Your task to perform on an android device: Open Reddit.com Image 0: 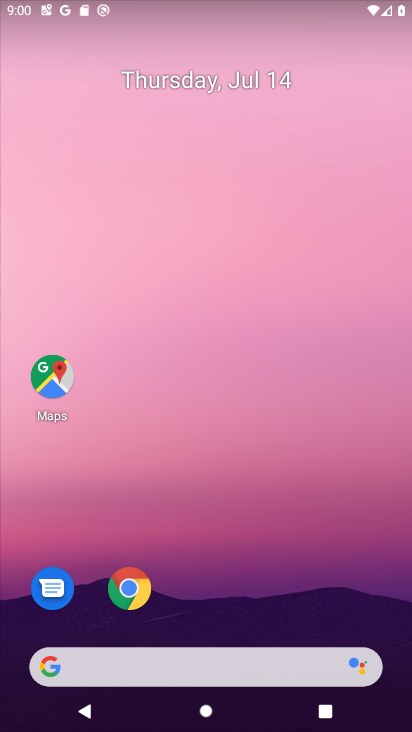
Step 0: click (238, 243)
Your task to perform on an android device: Open Reddit.com Image 1: 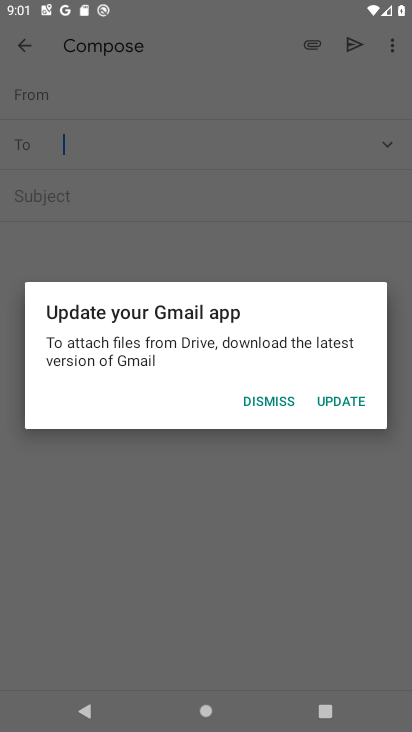
Step 1: press back button
Your task to perform on an android device: Open Reddit.com Image 2: 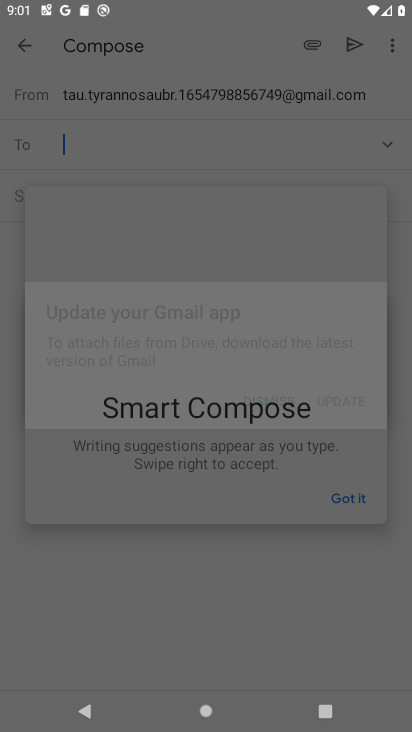
Step 2: press back button
Your task to perform on an android device: Open Reddit.com Image 3: 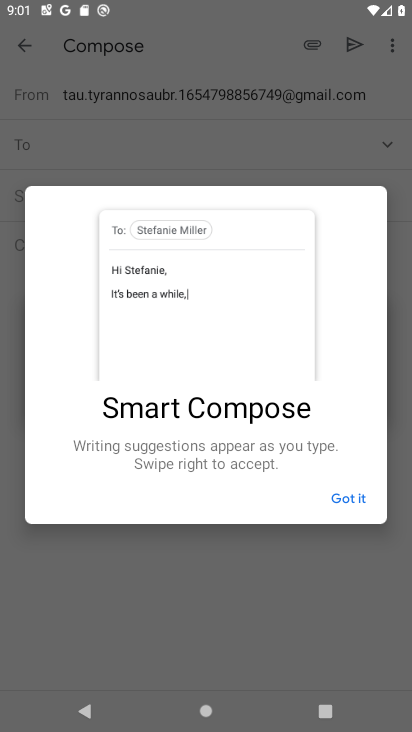
Step 3: click (26, 57)
Your task to perform on an android device: Open Reddit.com Image 4: 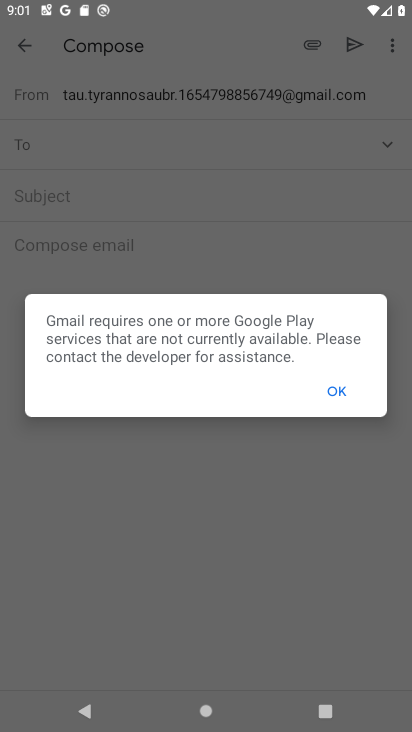
Step 4: click (334, 389)
Your task to perform on an android device: Open Reddit.com Image 5: 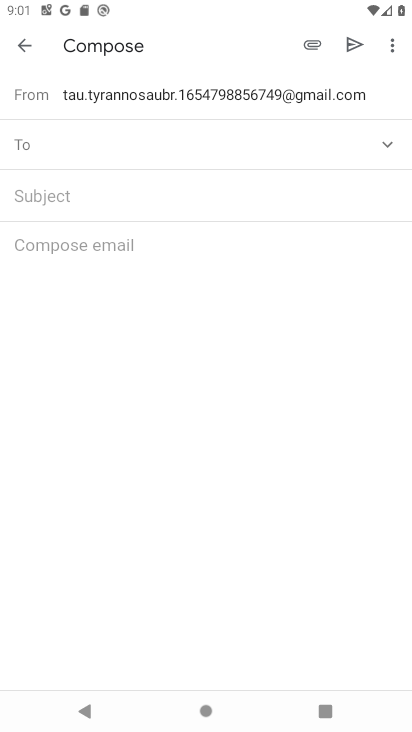
Step 5: click (334, 389)
Your task to perform on an android device: Open Reddit.com Image 6: 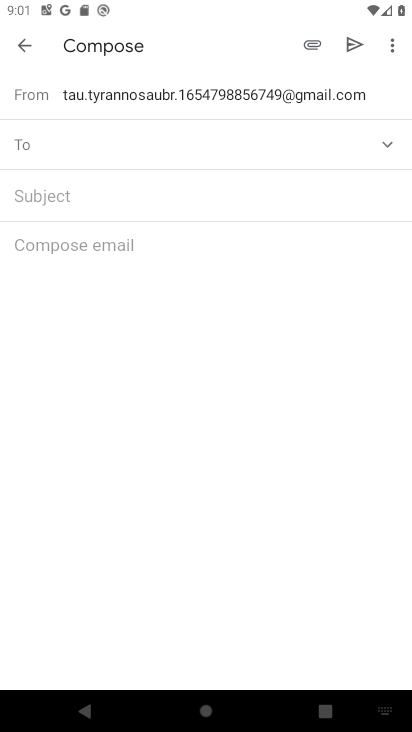
Step 6: click (31, 49)
Your task to perform on an android device: Open Reddit.com Image 7: 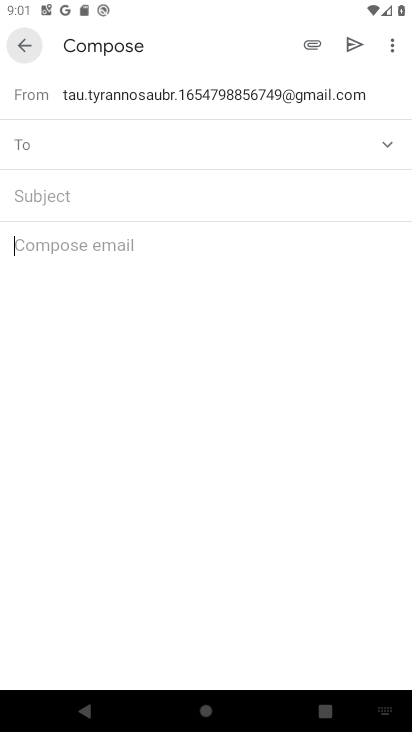
Step 7: click (29, 48)
Your task to perform on an android device: Open Reddit.com Image 8: 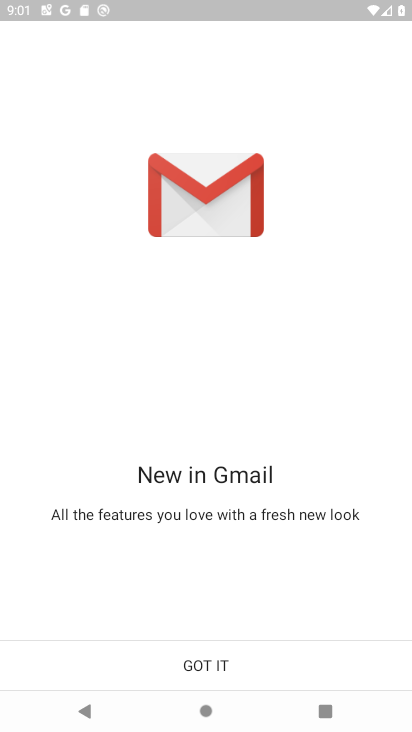
Step 8: click (240, 663)
Your task to perform on an android device: Open Reddit.com Image 9: 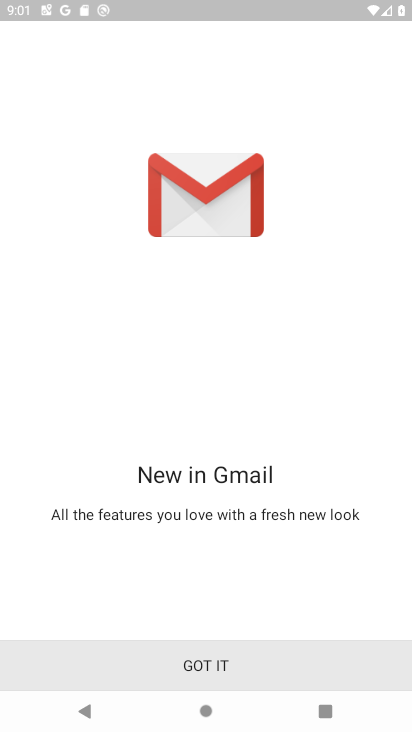
Step 9: click (229, 673)
Your task to perform on an android device: Open Reddit.com Image 10: 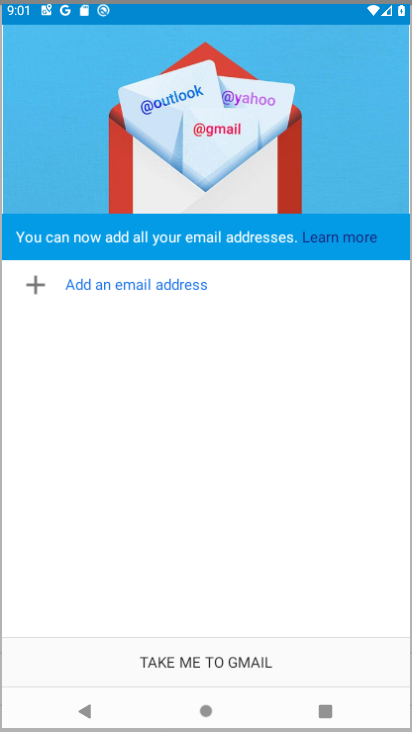
Step 10: click (231, 678)
Your task to perform on an android device: Open Reddit.com Image 11: 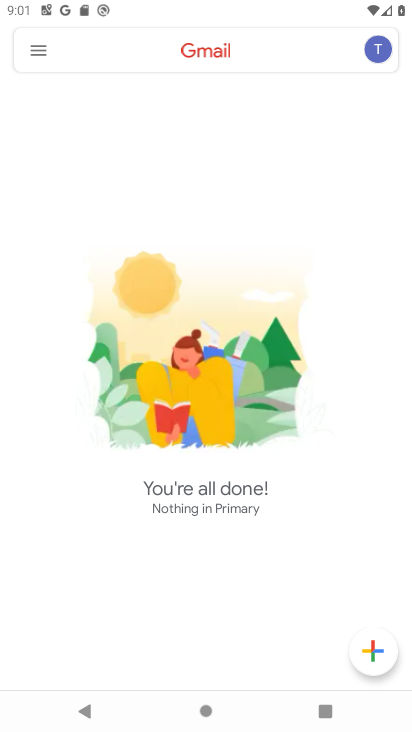
Step 11: press home button
Your task to perform on an android device: Open Reddit.com Image 12: 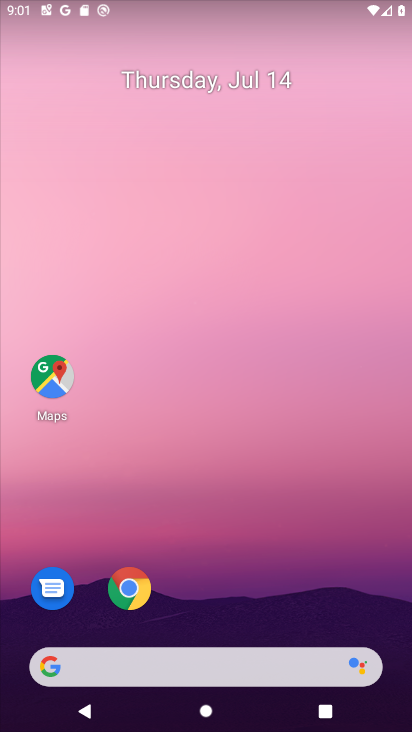
Step 12: drag from (291, 630) to (162, 249)
Your task to perform on an android device: Open Reddit.com Image 13: 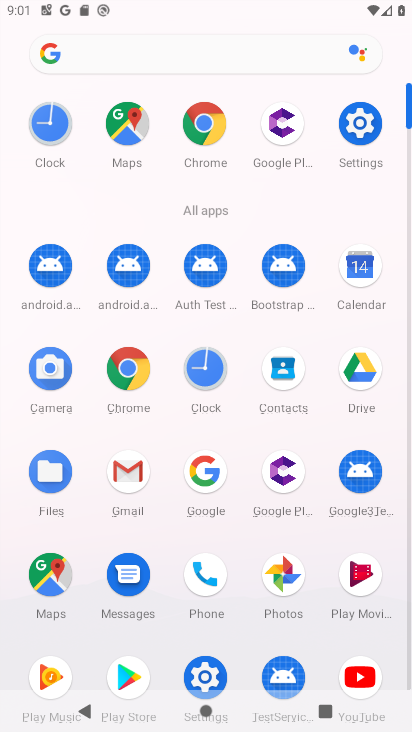
Step 13: click (201, 127)
Your task to perform on an android device: Open Reddit.com Image 14: 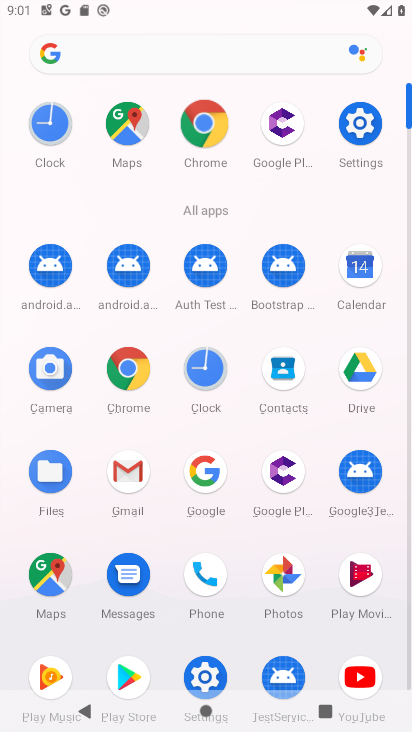
Step 14: click (203, 127)
Your task to perform on an android device: Open Reddit.com Image 15: 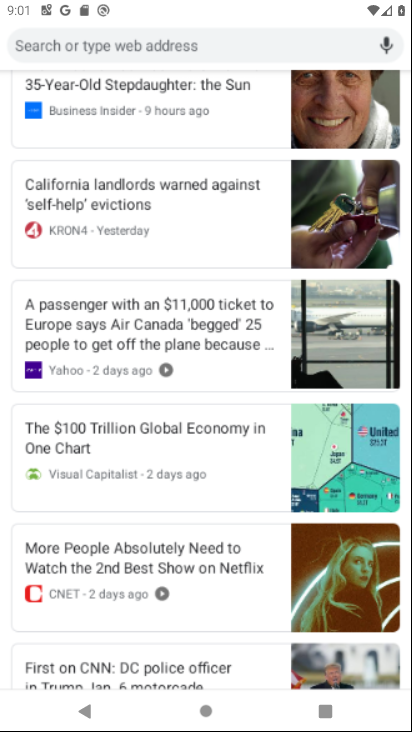
Step 15: click (55, 42)
Your task to perform on an android device: Open Reddit.com Image 16: 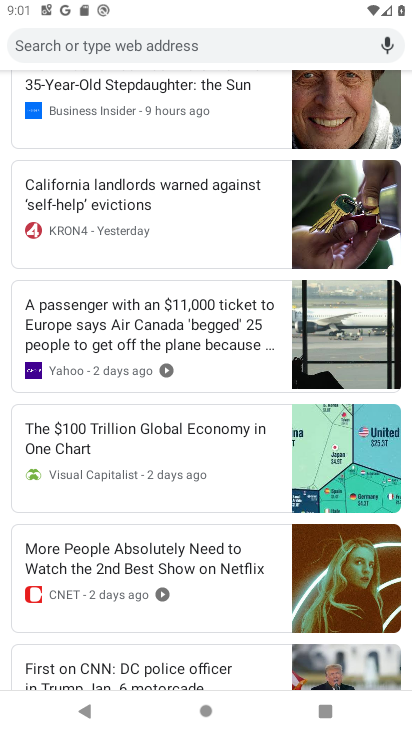
Step 16: click (55, 42)
Your task to perform on an android device: Open Reddit.com Image 17: 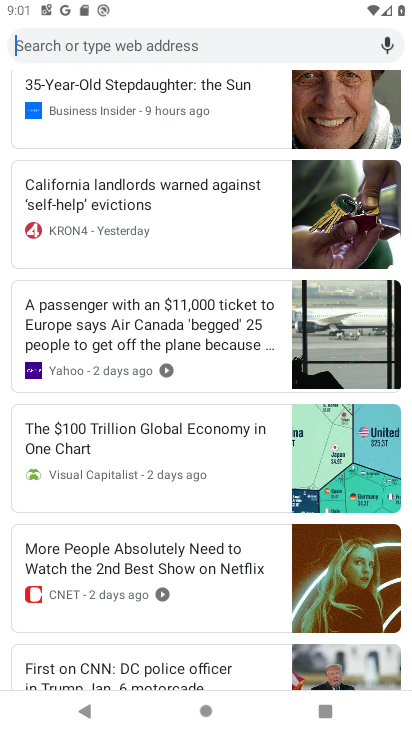
Step 17: click (55, 42)
Your task to perform on an android device: Open Reddit.com Image 18: 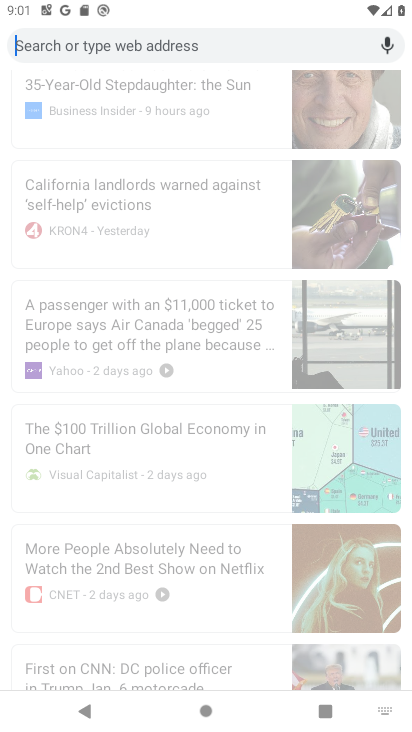
Step 18: click (55, 42)
Your task to perform on an android device: Open Reddit.com Image 19: 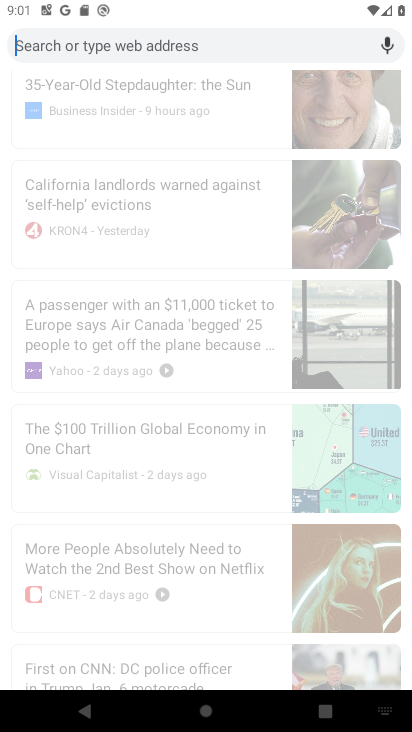
Step 19: type "reddit.com"
Your task to perform on an android device: Open Reddit.com Image 20: 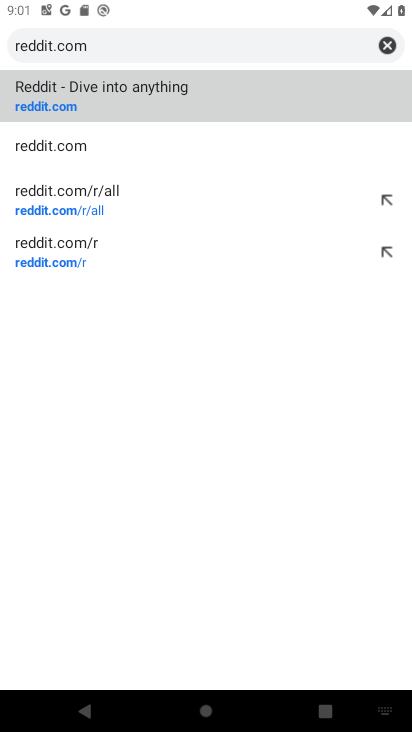
Step 20: click (64, 102)
Your task to perform on an android device: Open Reddit.com Image 21: 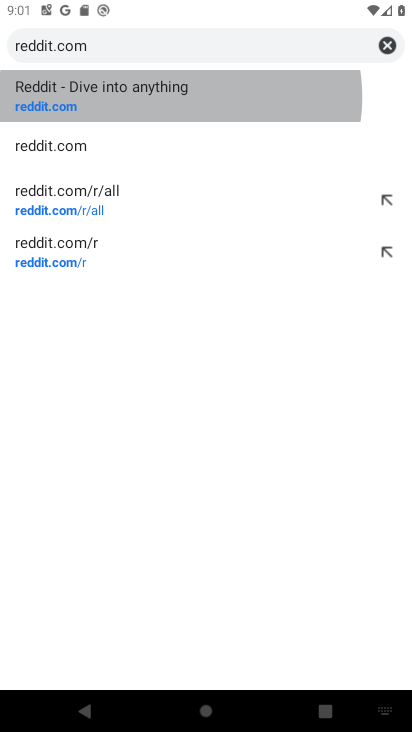
Step 21: click (65, 97)
Your task to perform on an android device: Open Reddit.com Image 22: 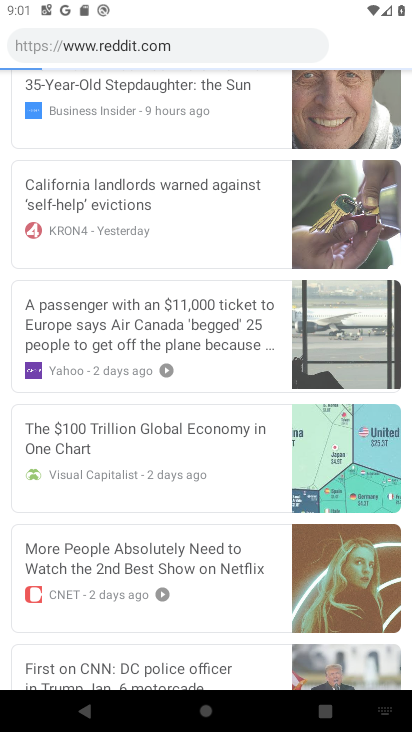
Step 22: click (66, 94)
Your task to perform on an android device: Open Reddit.com Image 23: 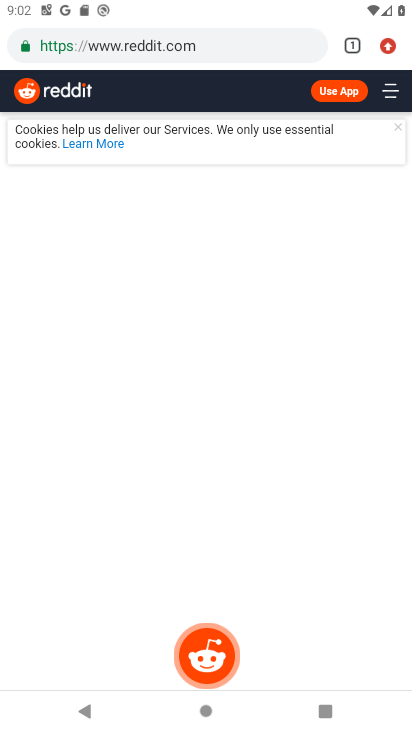
Step 23: task complete